Your task to perform on an android device: toggle translation in the chrome app Image 0: 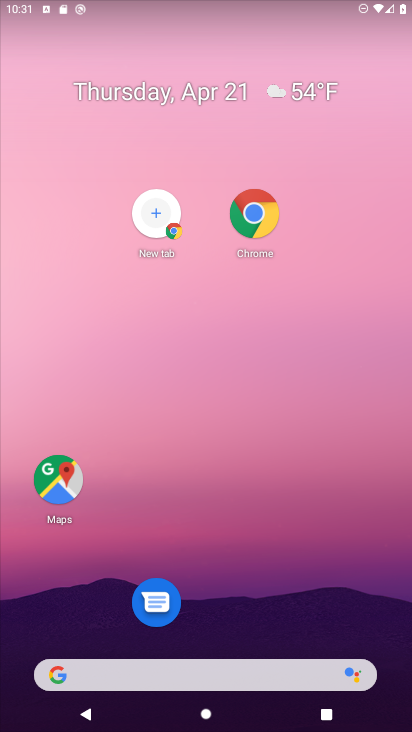
Step 0: click (257, 214)
Your task to perform on an android device: toggle translation in the chrome app Image 1: 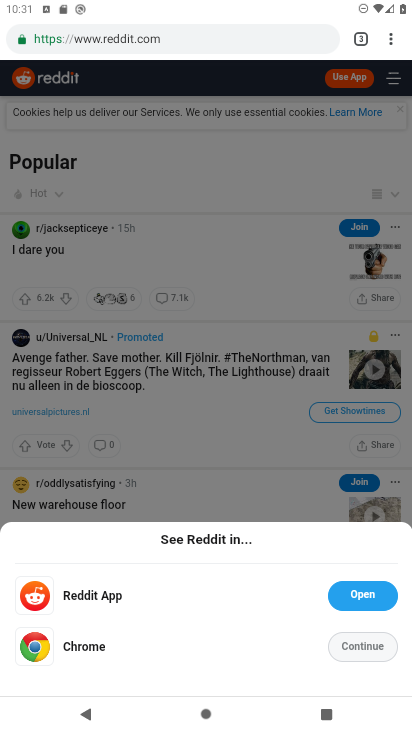
Step 1: click (394, 46)
Your task to perform on an android device: toggle translation in the chrome app Image 2: 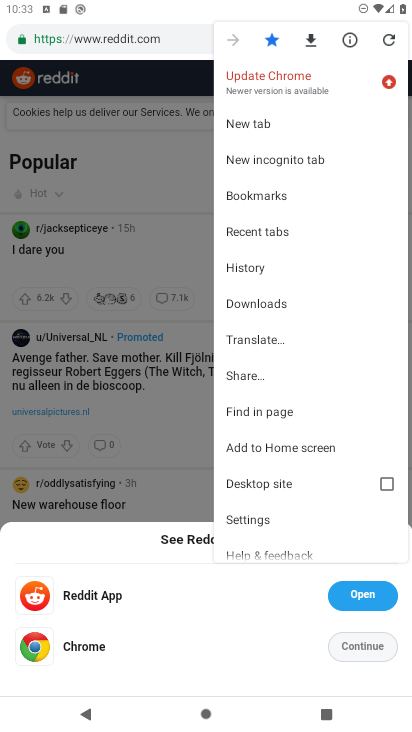
Step 2: click (273, 533)
Your task to perform on an android device: toggle translation in the chrome app Image 3: 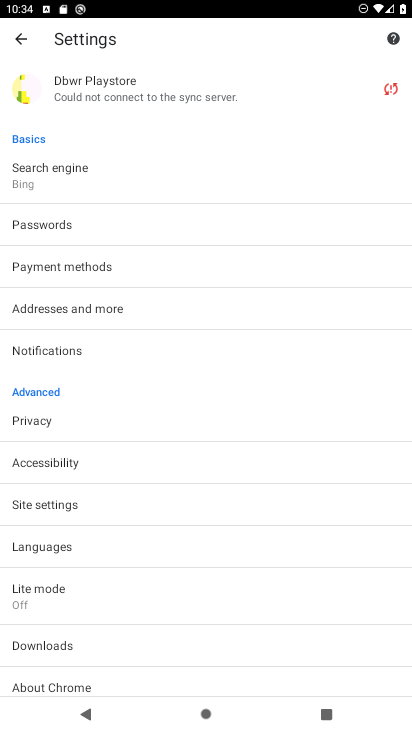
Step 3: click (119, 551)
Your task to perform on an android device: toggle translation in the chrome app Image 4: 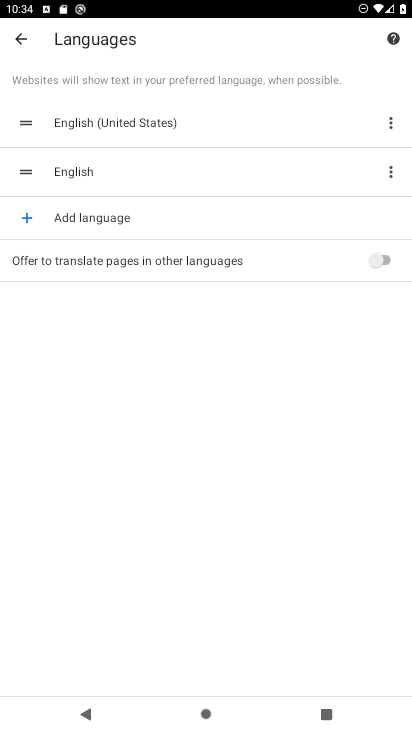
Step 4: click (383, 257)
Your task to perform on an android device: toggle translation in the chrome app Image 5: 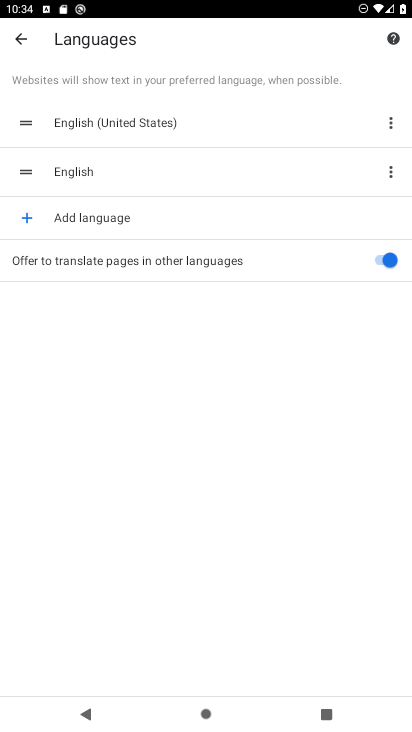
Step 5: click (383, 257)
Your task to perform on an android device: toggle translation in the chrome app Image 6: 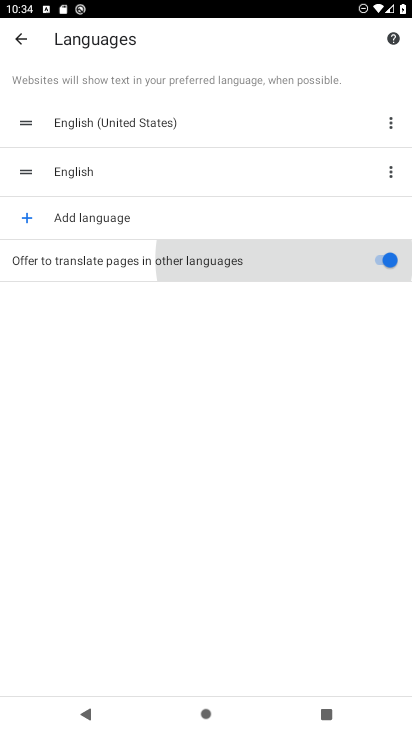
Step 6: click (383, 257)
Your task to perform on an android device: toggle translation in the chrome app Image 7: 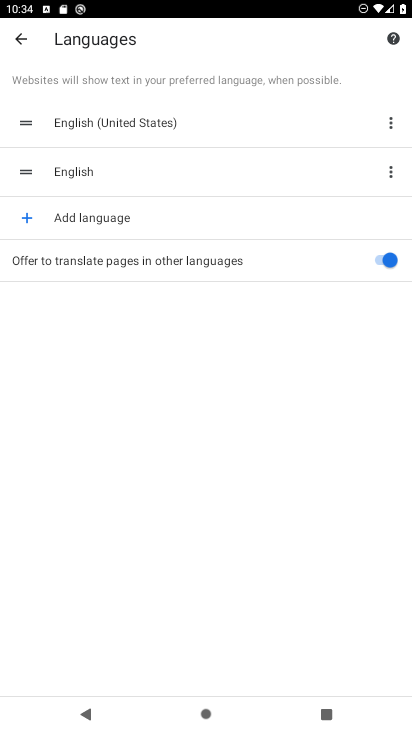
Step 7: task complete